Your task to perform on an android device: toggle data saver in the chrome app Image 0: 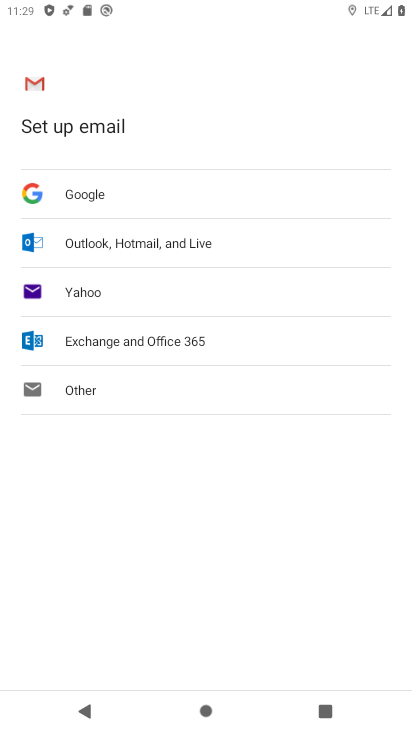
Step 0: press home button
Your task to perform on an android device: toggle data saver in the chrome app Image 1: 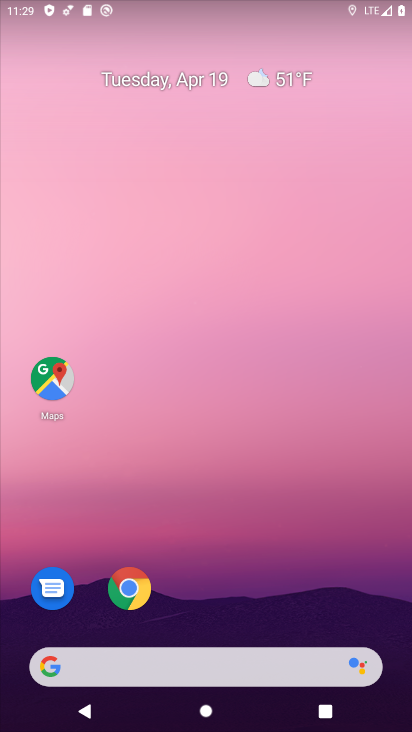
Step 1: click (126, 587)
Your task to perform on an android device: toggle data saver in the chrome app Image 2: 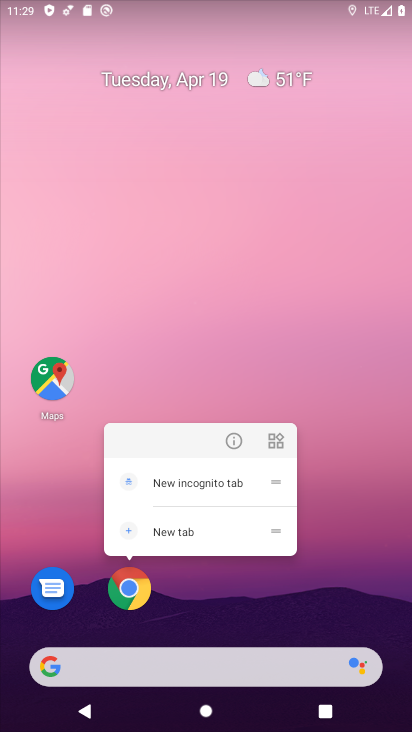
Step 2: click (127, 584)
Your task to perform on an android device: toggle data saver in the chrome app Image 3: 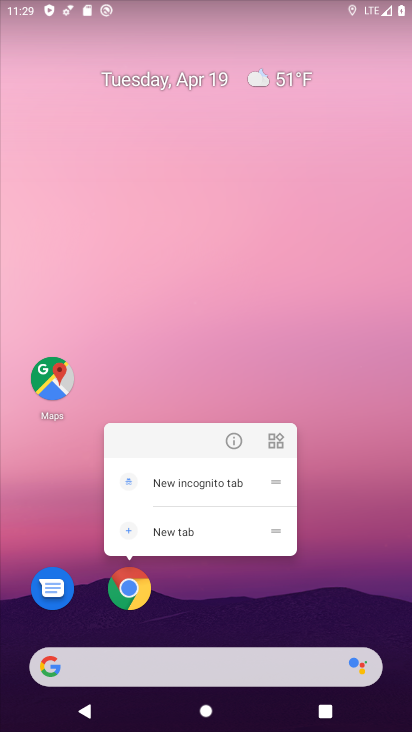
Step 3: click (125, 581)
Your task to perform on an android device: toggle data saver in the chrome app Image 4: 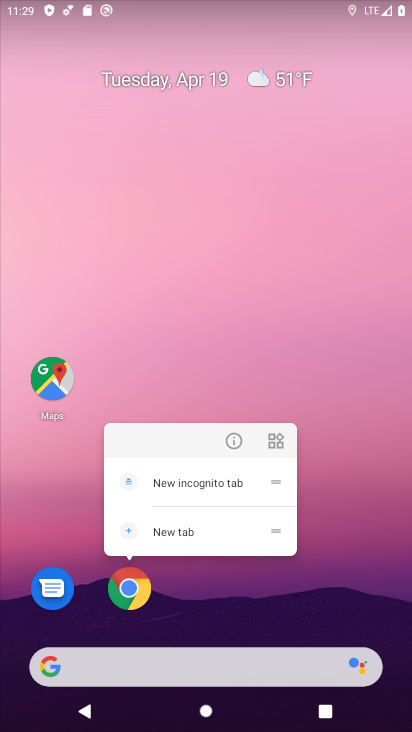
Step 4: click (129, 586)
Your task to perform on an android device: toggle data saver in the chrome app Image 5: 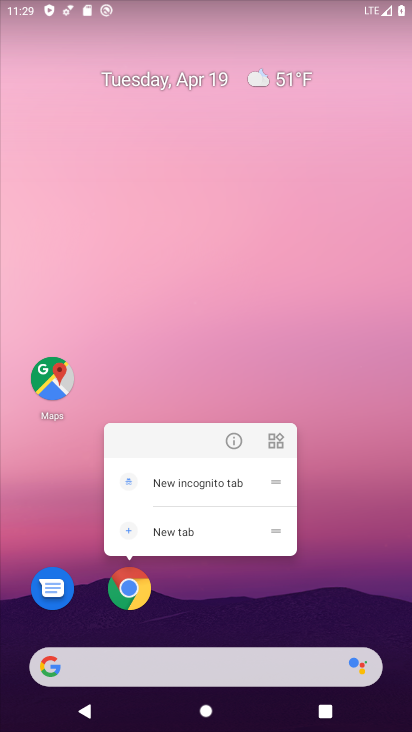
Step 5: click (194, 600)
Your task to perform on an android device: toggle data saver in the chrome app Image 6: 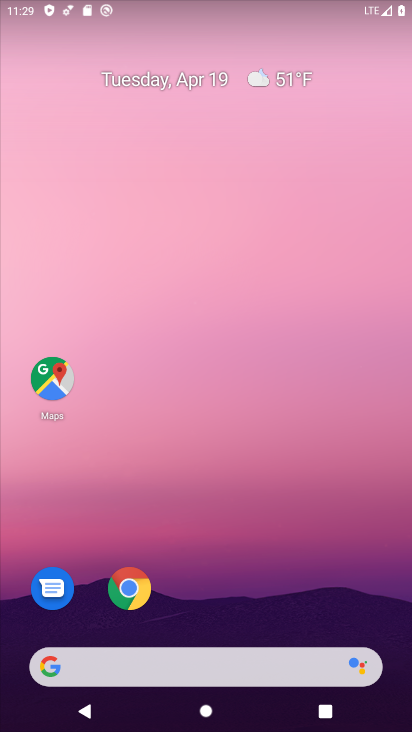
Step 6: click (128, 582)
Your task to perform on an android device: toggle data saver in the chrome app Image 7: 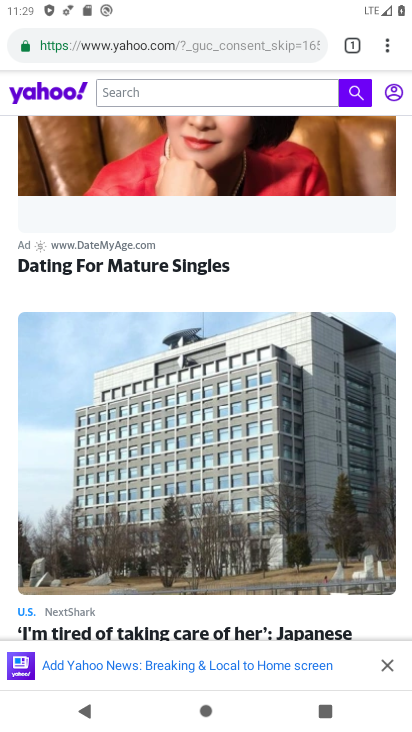
Step 7: click (388, 42)
Your task to perform on an android device: toggle data saver in the chrome app Image 8: 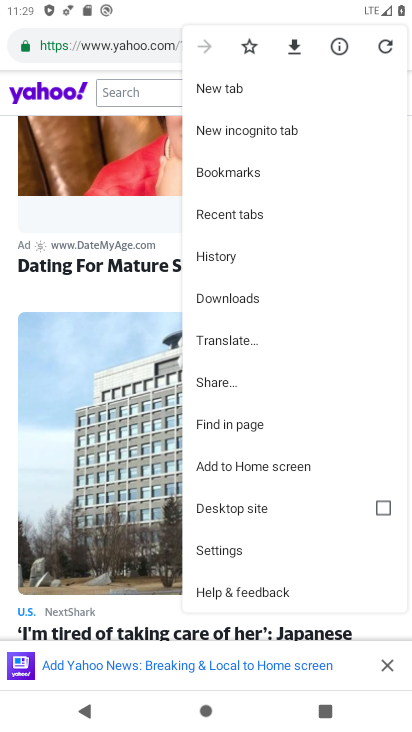
Step 8: click (251, 547)
Your task to perform on an android device: toggle data saver in the chrome app Image 9: 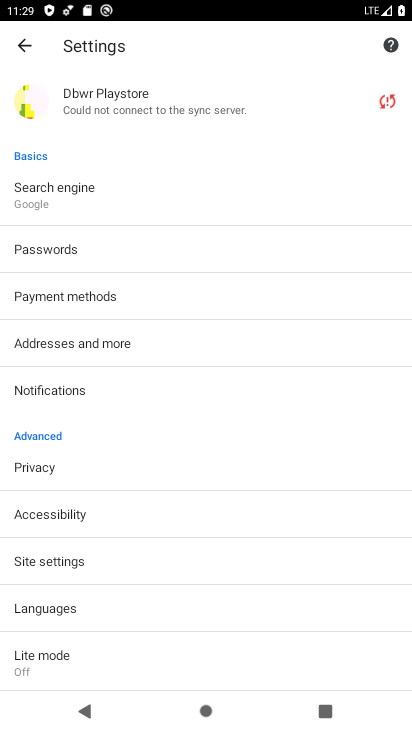
Step 9: drag from (182, 643) to (199, 132)
Your task to perform on an android device: toggle data saver in the chrome app Image 10: 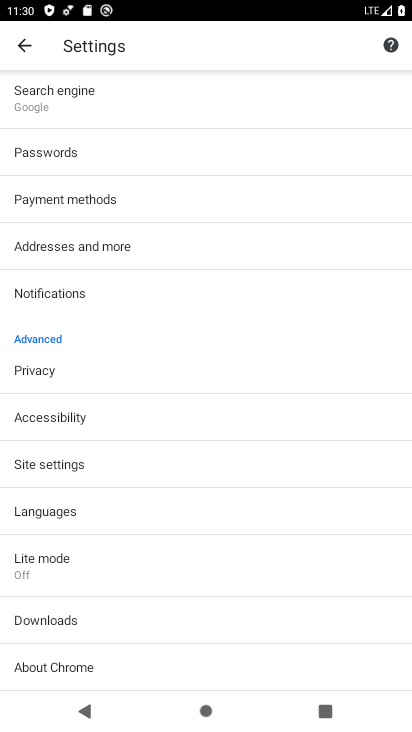
Step 10: click (107, 565)
Your task to perform on an android device: toggle data saver in the chrome app Image 11: 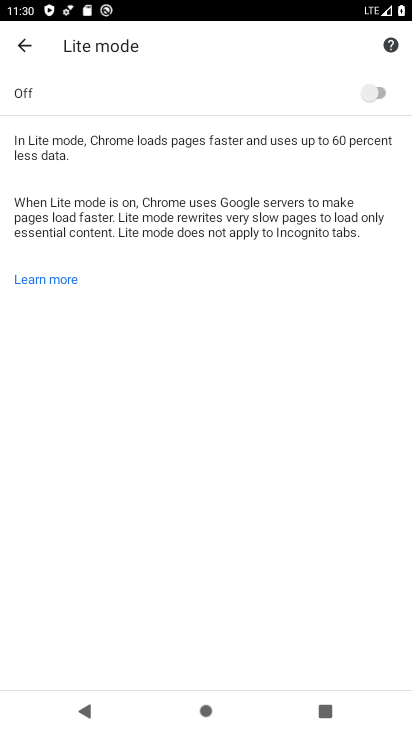
Step 11: click (377, 93)
Your task to perform on an android device: toggle data saver in the chrome app Image 12: 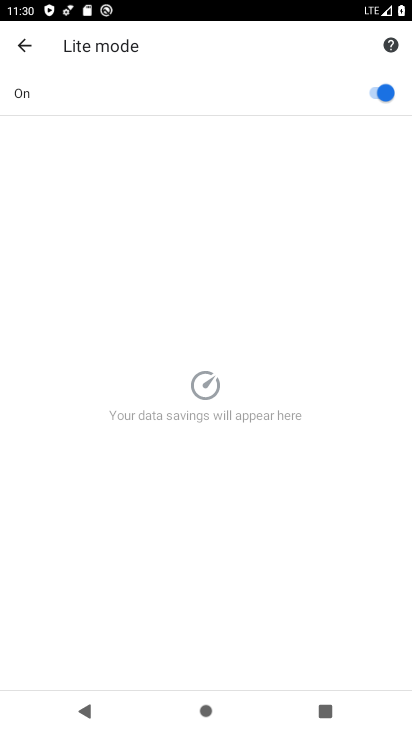
Step 12: task complete